Your task to perform on an android device: What's the weather? Image 0: 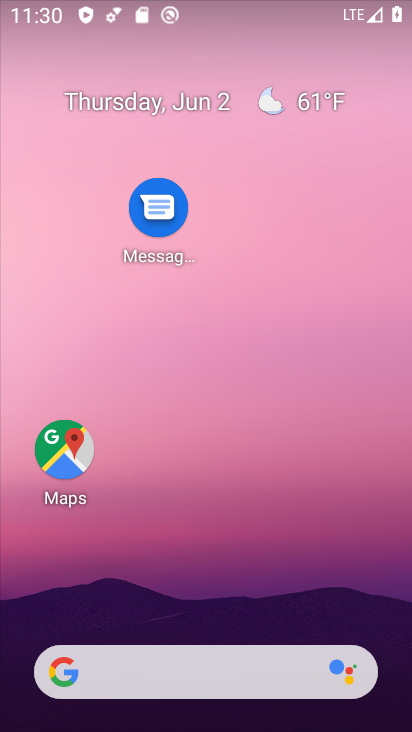
Step 0: click (207, 663)
Your task to perform on an android device: What's the weather? Image 1: 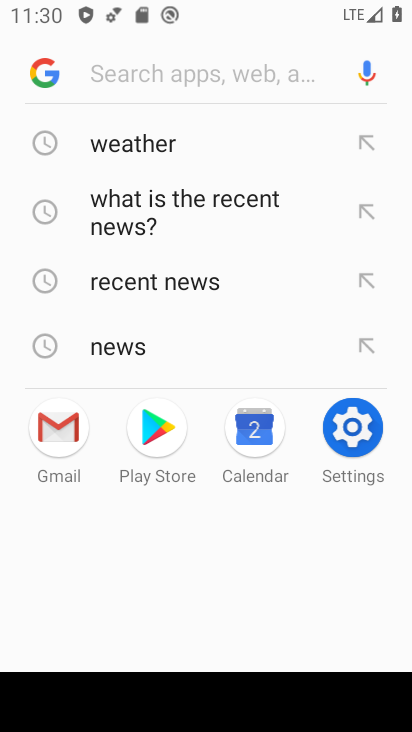
Step 1: click (115, 132)
Your task to perform on an android device: What's the weather? Image 2: 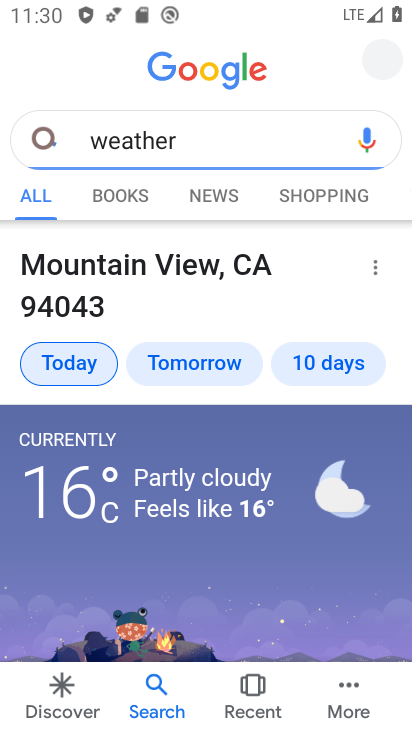
Step 2: task complete